Your task to perform on an android device: Open Google Chrome Image 0: 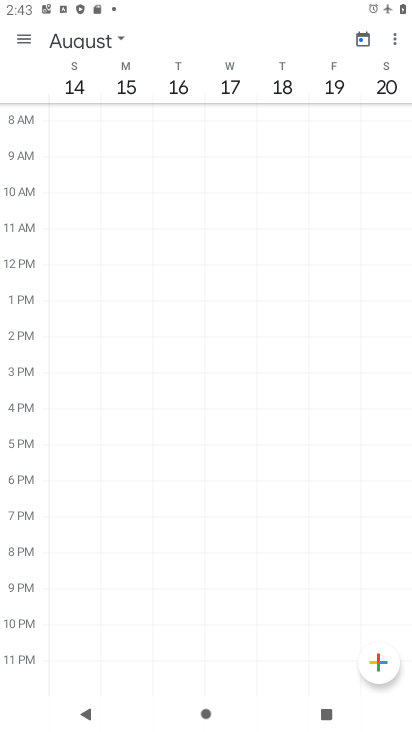
Step 0: press home button
Your task to perform on an android device: Open Google Chrome Image 1: 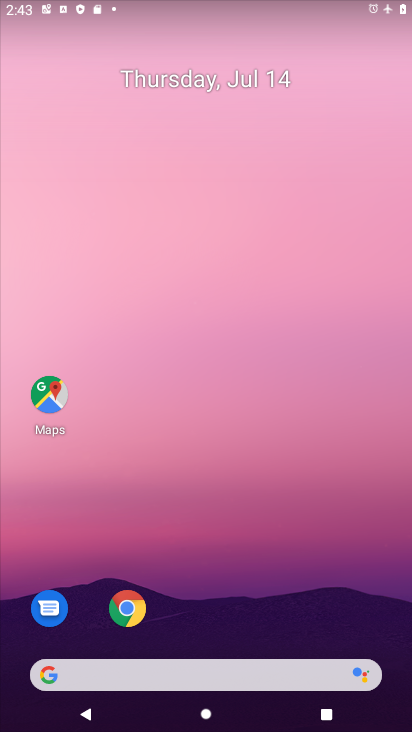
Step 1: click (126, 609)
Your task to perform on an android device: Open Google Chrome Image 2: 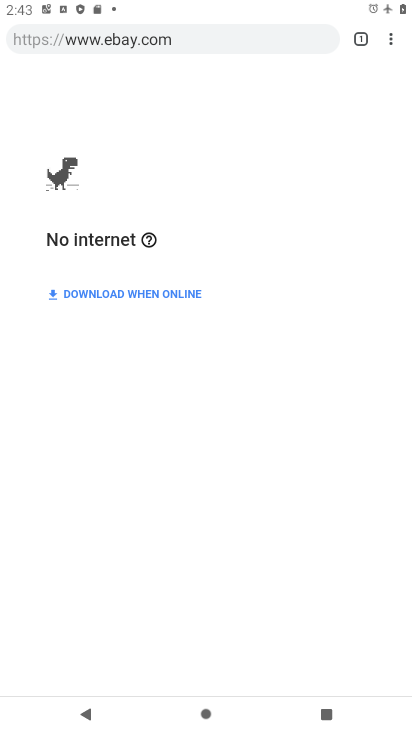
Step 2: task complete